Your task to perform on an android device: Open settings Image 0: 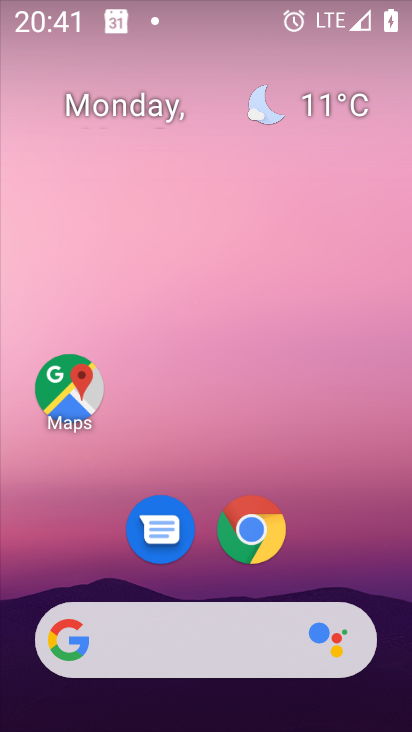
Step 0: drag from (218, 628) to (109, 10)
Your task to perform on an android device: Open settings Image 1: 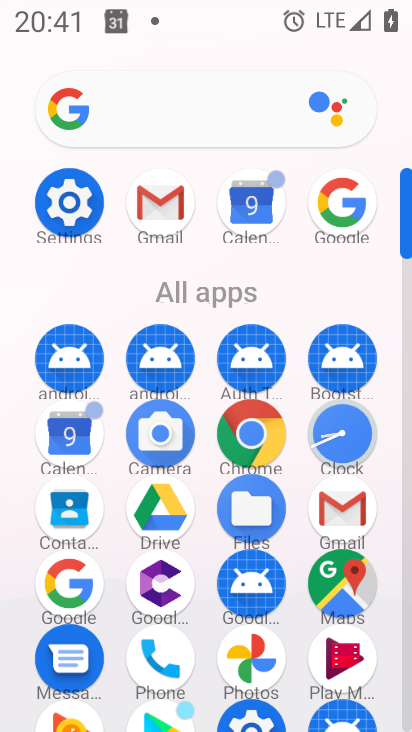
Step 1: click (80, 216)
Your task to perform on an android device: Open settings Image 2: 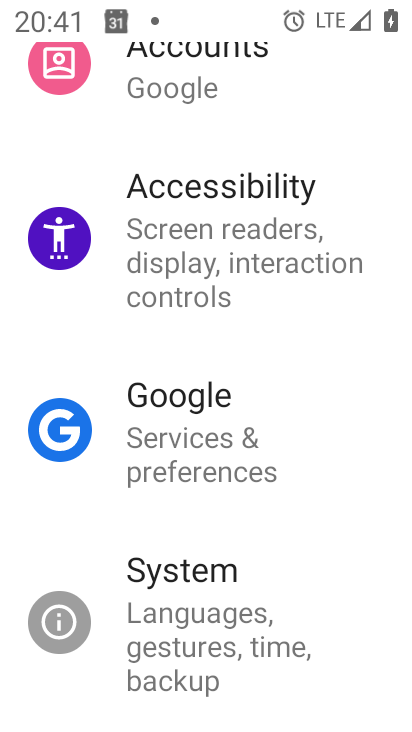
Step 2: task complete